Your task to perform on an android device: see sites visited before in the chrome app Image 0: 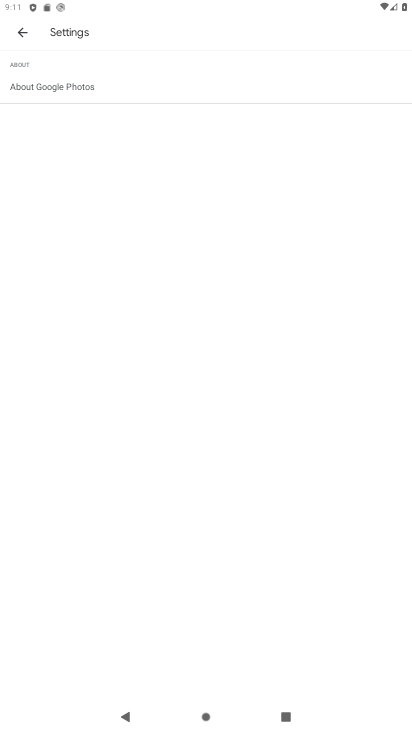
Step 0: press home button
Your task to perform on an android device: see sites visited before in the chrome app Image 1: 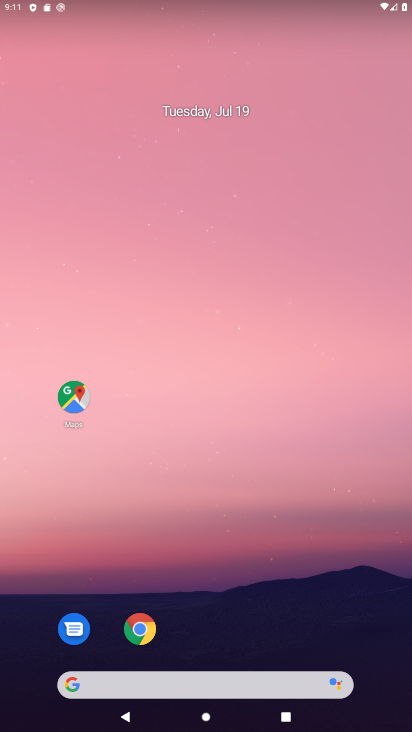
Step 1: click (142, 624)
Your task to perform on an android device: see sites visited before in the chrome app Image 2: 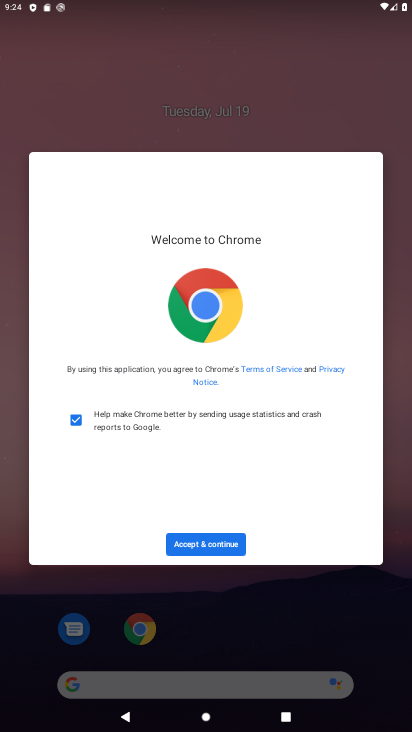
Step 2: press home button
Your task to perform on an android device: see sites visited before in the chrome app Image 3: 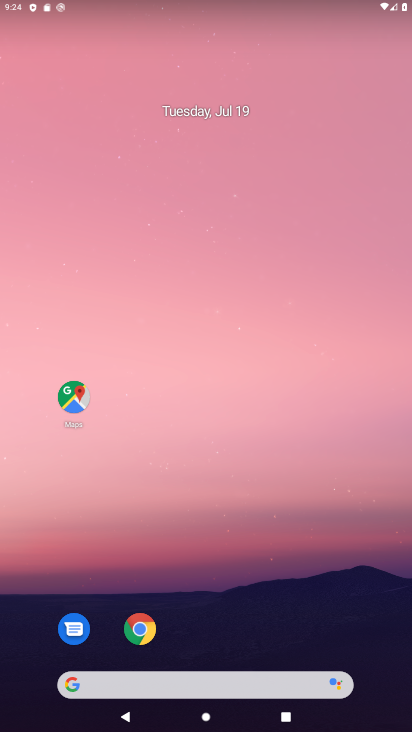
Step 3: click (148, 622)
Your task to perform on an android device: see sites visited before in the chrome app Image 4: 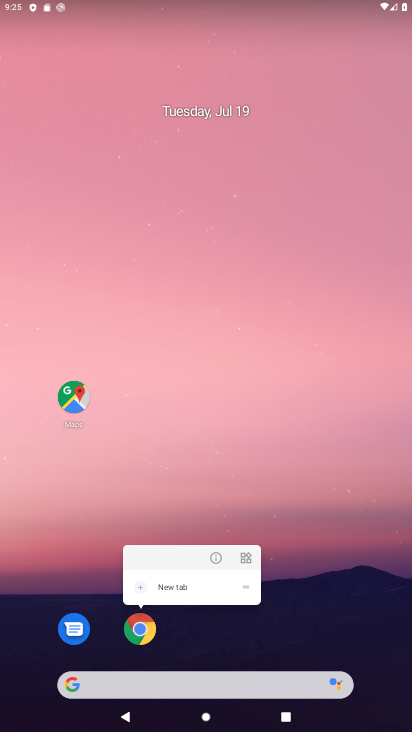
Step 4: click (148, 622)
Your task to perform on an android device: see sites visited before in the chrome app Image 5: 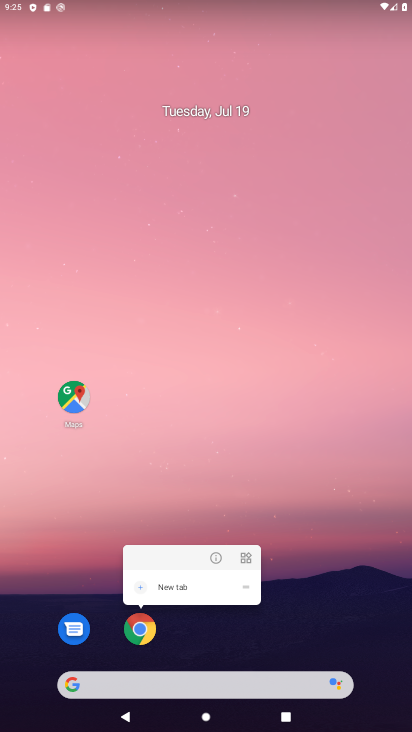
Step 5: click (141, 631)
Your task to perform on an android device: see sites visited before in the chrome app Image 6: 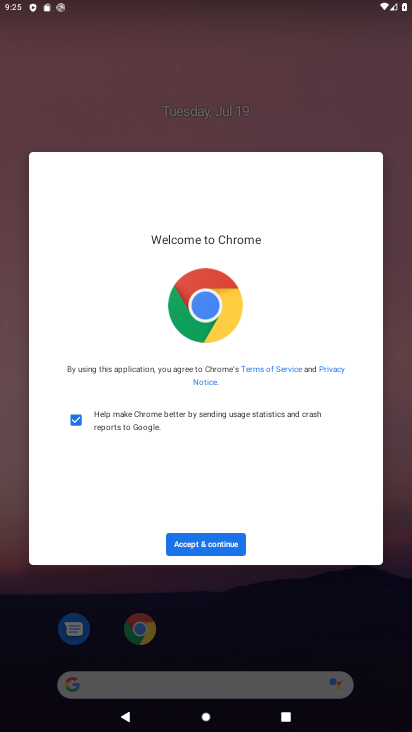
Step 6: click (225, 541)
Your task to perform on an android device: see sites visited before in the chrome app Image 7: 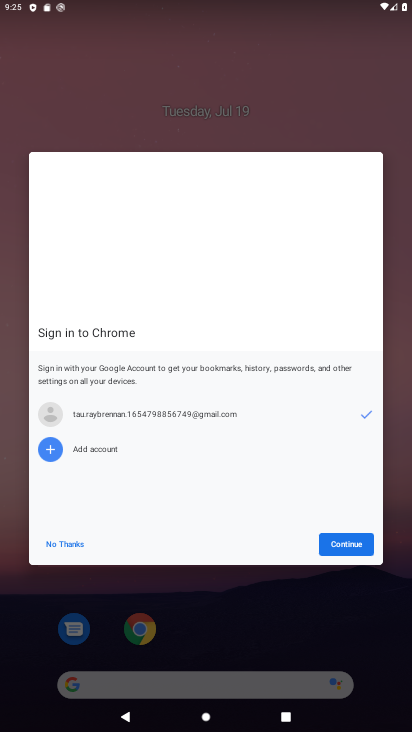
Step 7: click (355, 537)
Your task to perform on an android device: see sites visited before in the chrome app Image 8: 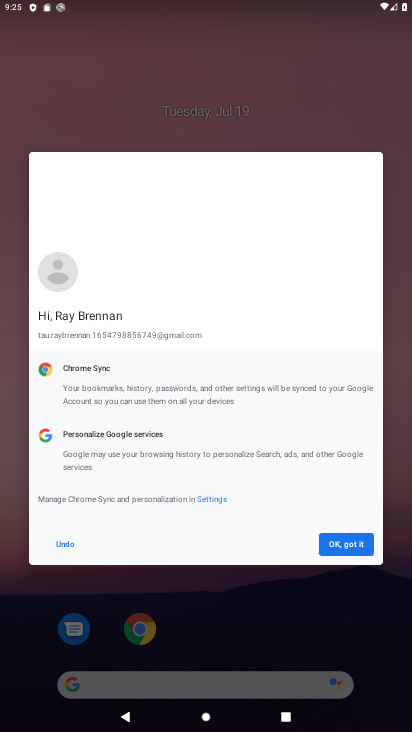
Step 8: click (348, 545)
Your task to perform on an android device: see sites visited before in the chrome app Image 9: 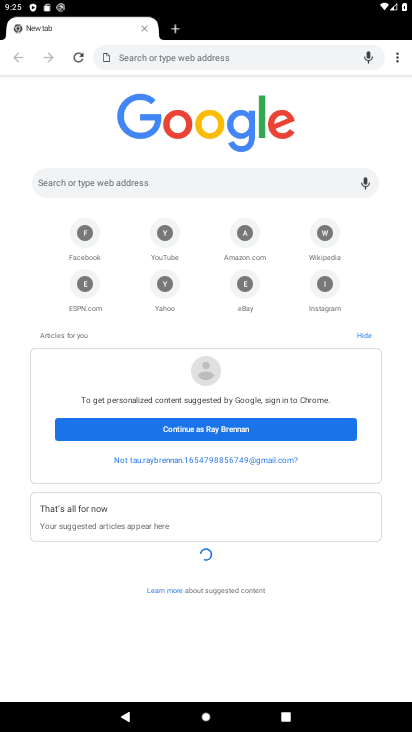
Step 9: click (394, 62)
Your task to perform on an android device: see sites visited before in the chrome app Image 10: 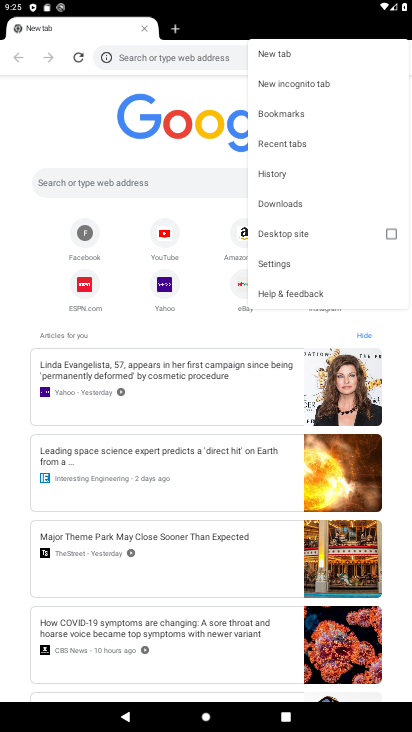
Step 10: click (289, 142)
Your task to perform on an android device: see sites visited before in the chrome app Image 11: 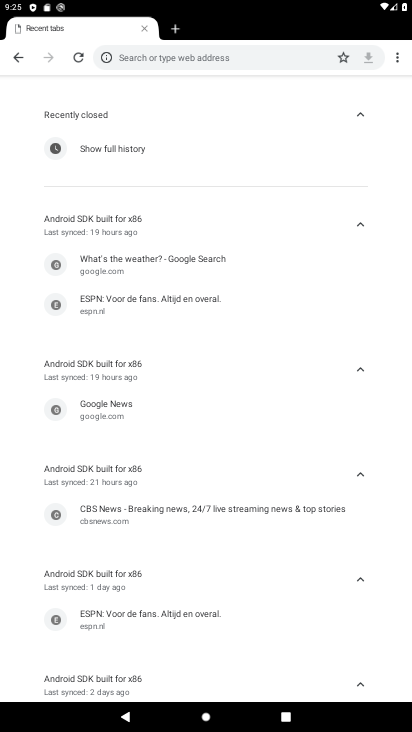
Step 11: task complete